Your task to perform on an android device: allow notifications from all sites in the chrome app Image 0: 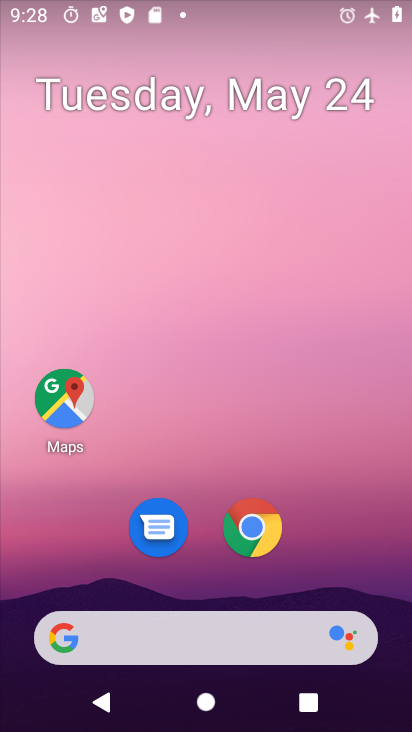
Step 0: click (261, 529)
Your task to perform on an android device: allow notifications from all sites in the chrome app Image 1: 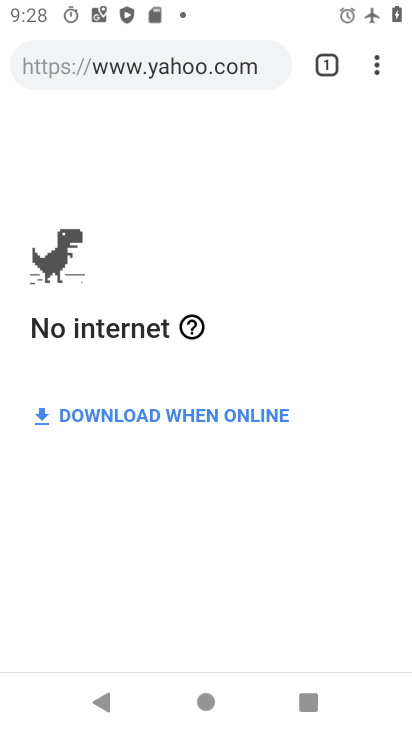
Step 1: press home button
Your task to perform on an android device: allow notifications from all sites in the chrome app Image 2: 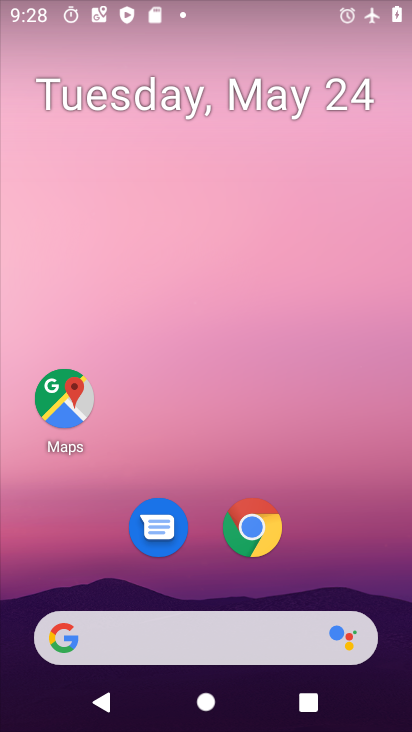
Step 2: click (258, 524)
Your task to perform on an android device: allow notifications from all sites in the chrome app Image 3: 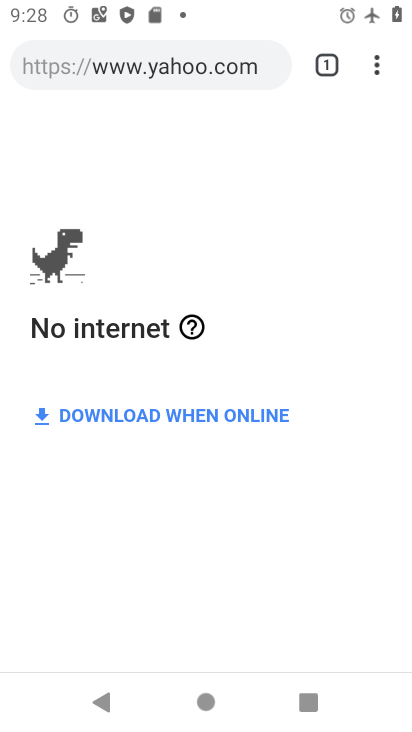
Step 3: task complete